Your task to perform on an android device: Go to Maps Image 0: 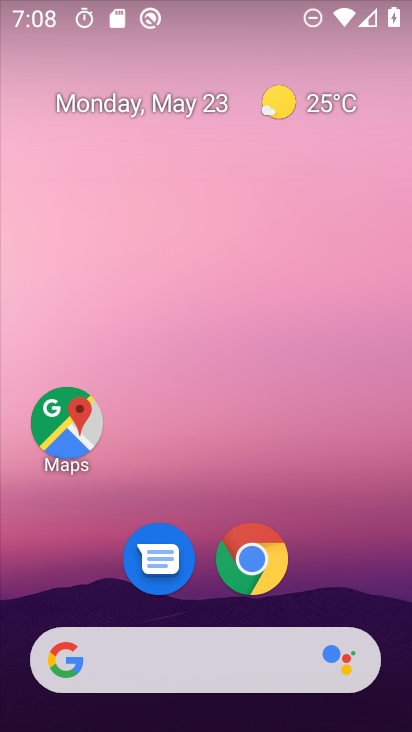
Step 0: drag from (388, 620) to (306, 122)
Your task to perform on an android device: Go to Maps Image 1: 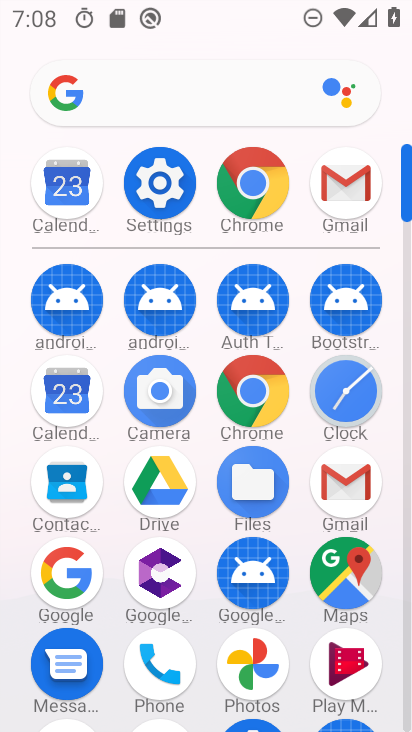
Step 1: click (356, 573)
Your task to perform on an android device: Go to Maps Image 2: 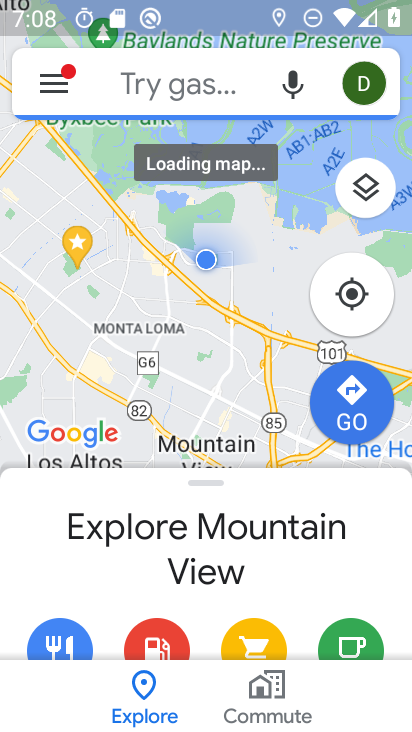
Step 2: task complete